Your task to perform on an android device: Go to ESPN.com Image 0: 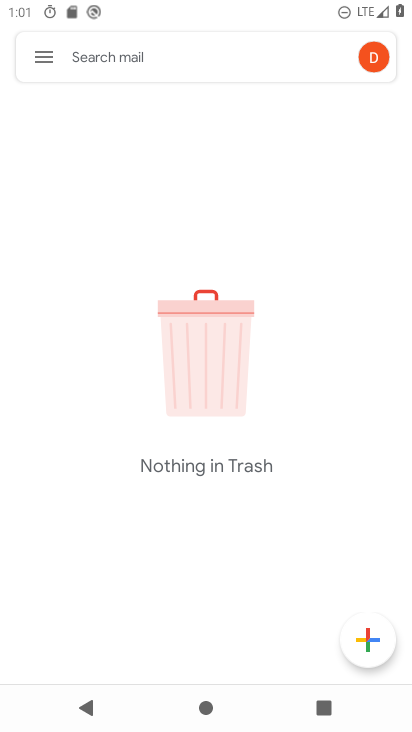
Step 0: press home button
Your task to perform on an android device: Go to ESPN.com Image 1: 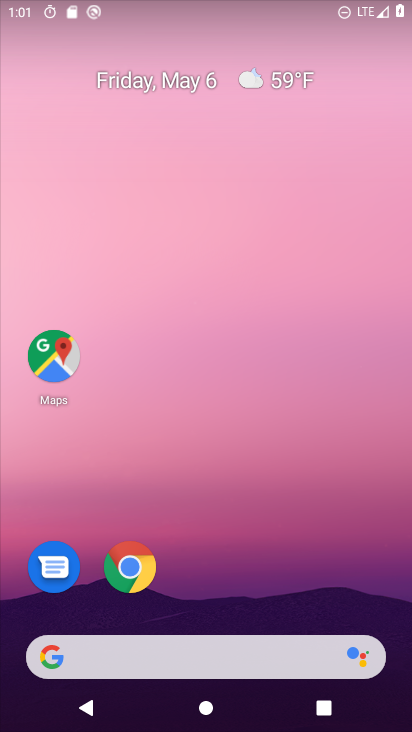
Step 1: click (139, 570)
Your task to perform on an android device: Go to ESPN.com Image 2: 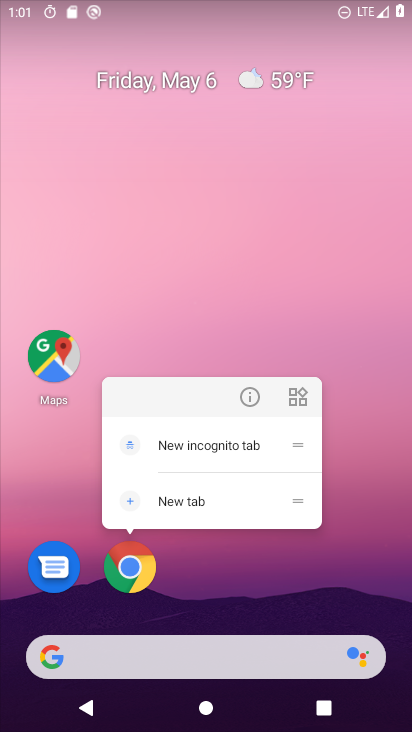
Step 2: click (130, 580)
Your task to perform on an android device: Go to ESPN.com Image 3: 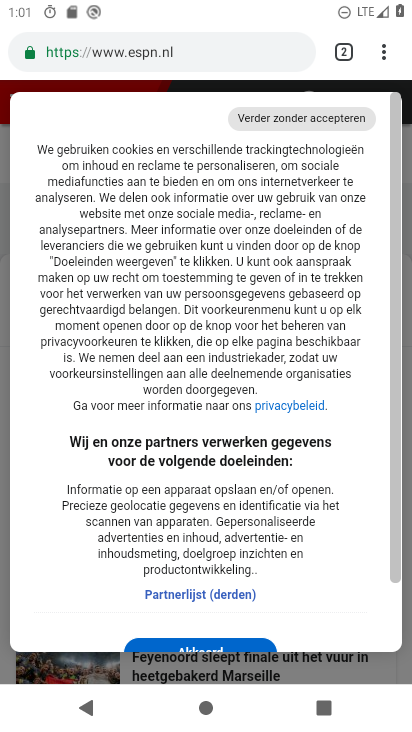
Step 3: task complete